Your task to perform on an android device: turn off picture-in-picture Image 0: 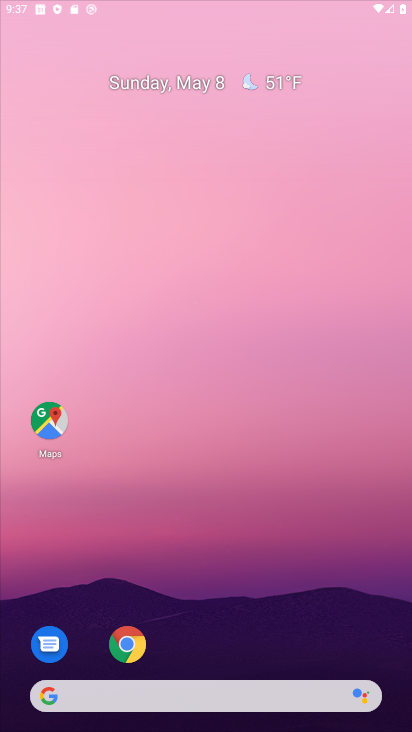
Step 0: drag from (208, 659) to (220, 278)
Your task to perform on an android device: turn off picture-in-picture Image 1: 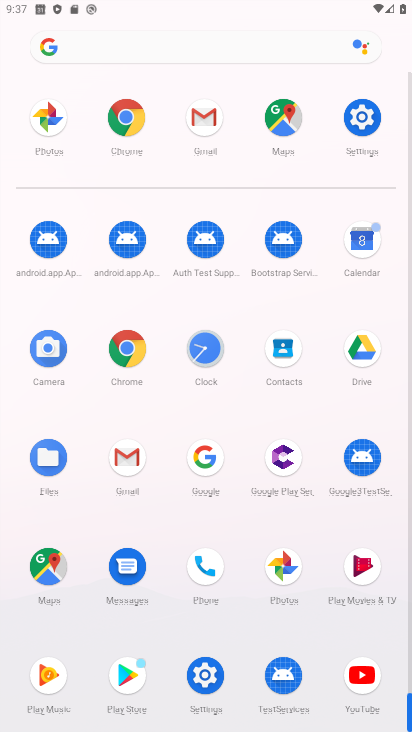
Step 1: click (196, 672)
Your task to perform on an android device: turn off picture-in-picture Image 2: 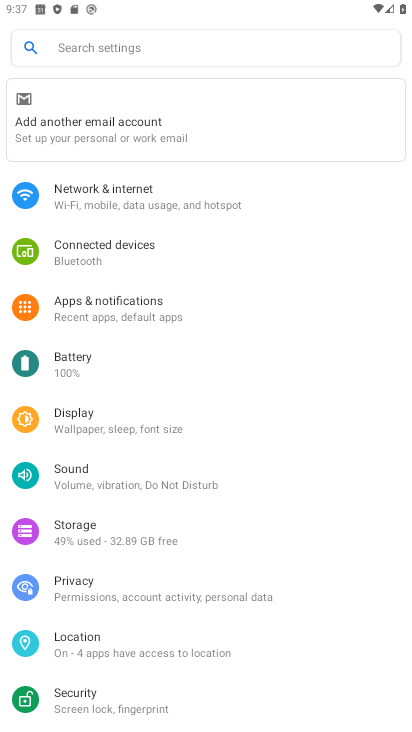
Step 2: click (157, 320)
Your task to perform on an android device: turn off picture-in-picture Image 3: 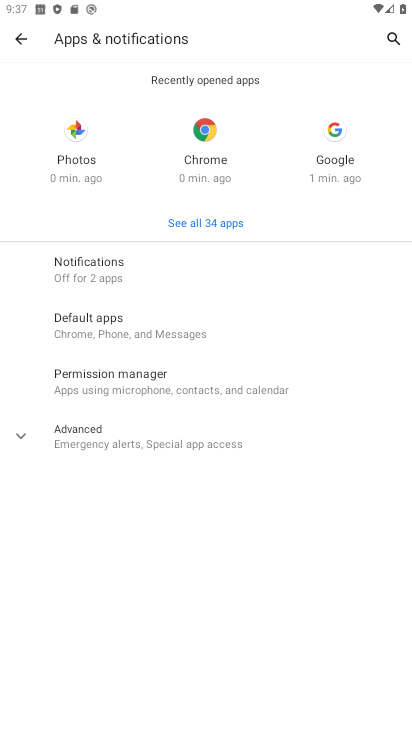
Step 3: click (121, 442)
Your task to perform on an android device: turn off picture-in-picture Image 4: 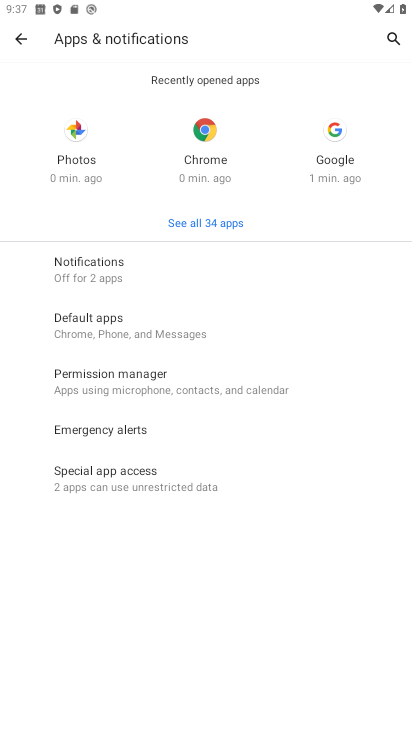
Step 4: click (128, 490)
Your task to perform on an android device: turn off picture-in-picture Image 5: 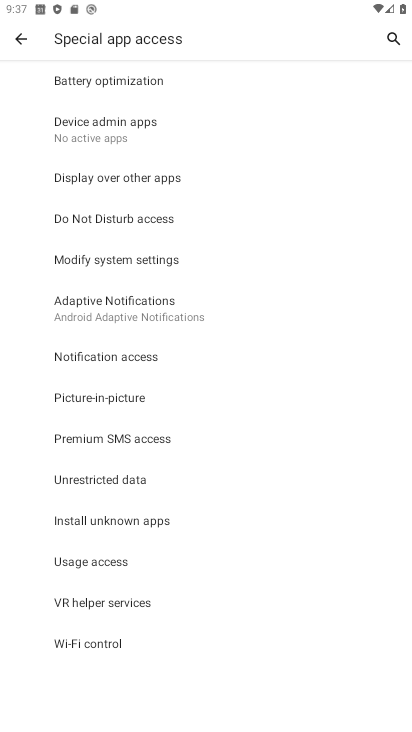
Step 5: click (105, 395)
Your task to perform on an android device: turn off picture-in-picture Image 6: 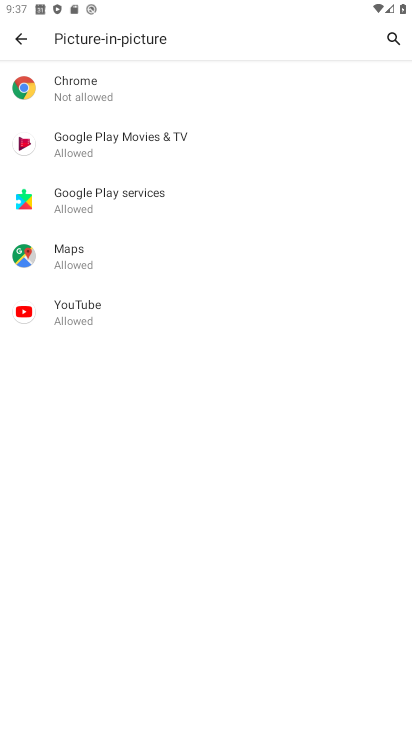
Step 6: click (130, 144)
Your task to perform on an android device: turn off picture-in-picture Image 7: 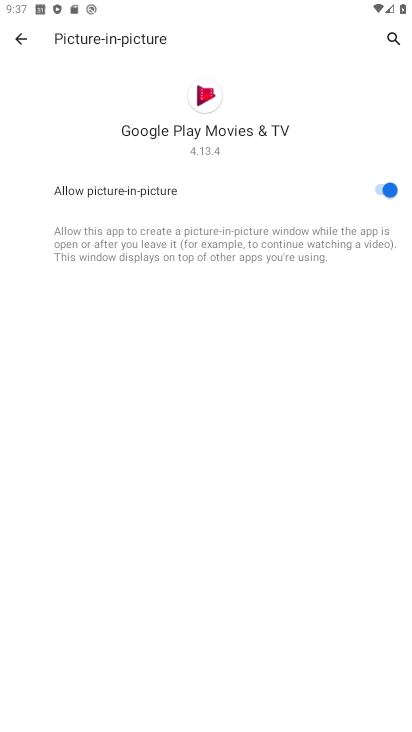
Step 7: click (382, 188)
Your task to perform on an android device: turn off picture-in-picture Image 8: 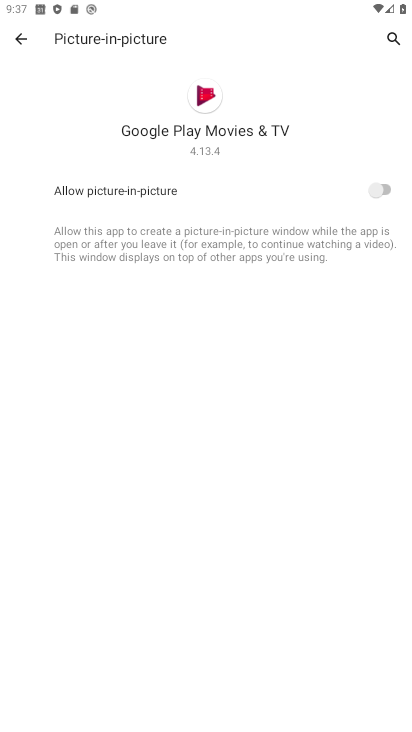
Step 8: task complete